Your task to perform on an android device: turn off location history Image 0: 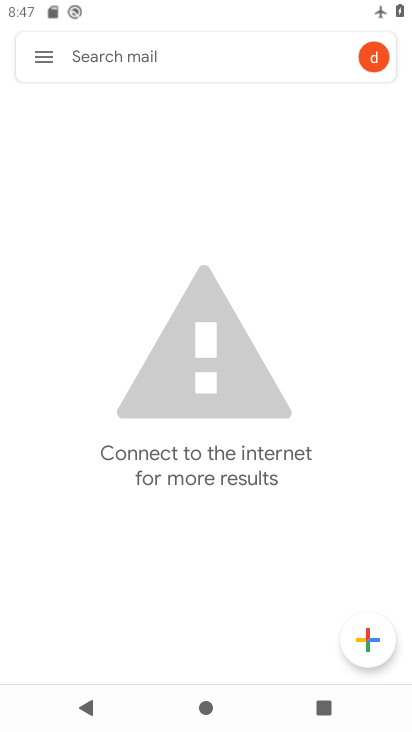
Step 0: press home button
Your task to perform on an android device: turn off location history Image 1: 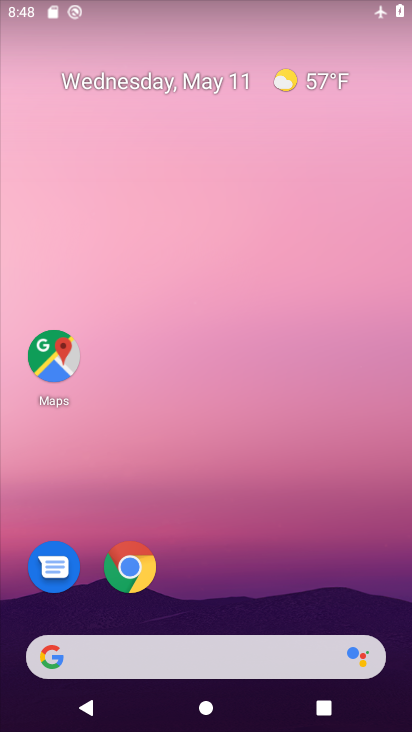
Step 1: drag from (255, 508) to (253, 82)
Your task to perform on an android device: turn off location history Image 2: 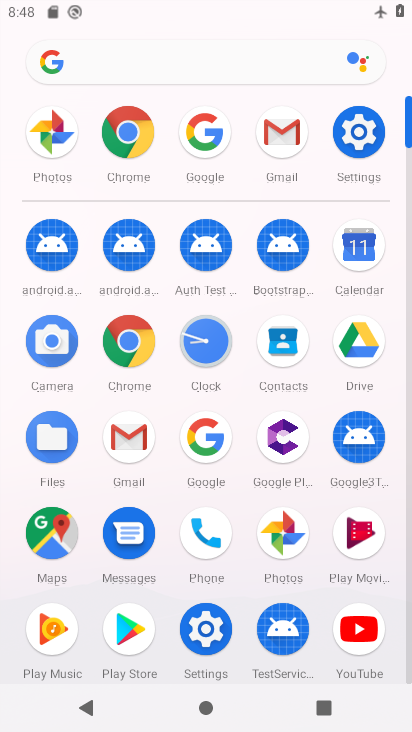
Step 2: click (367, 122)
Your task to perform on an android device: turn off location history Image 3: 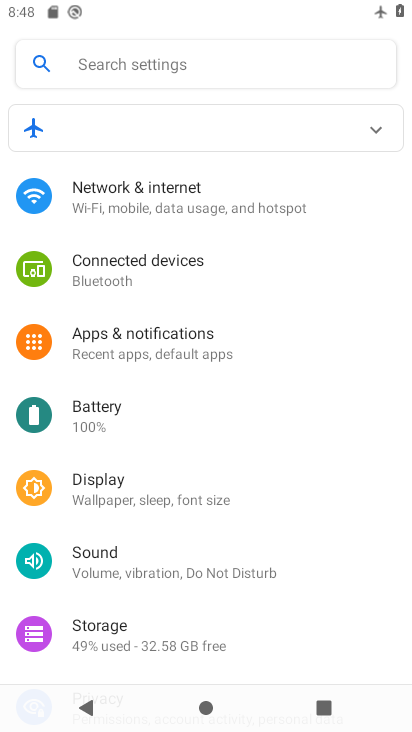
Step 3: drag from (183, 601) to (206, 267)
Your task to perform on an android device: turn off location history Image 4: 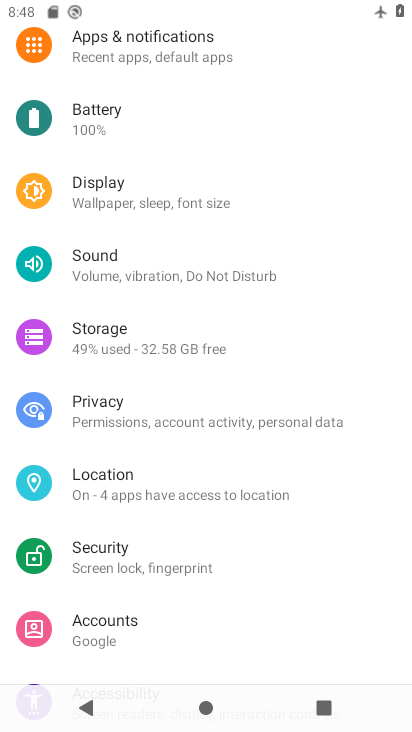
Step 4: click (160, 474)
Your task to perform on an android device: turn off location history Image 5: 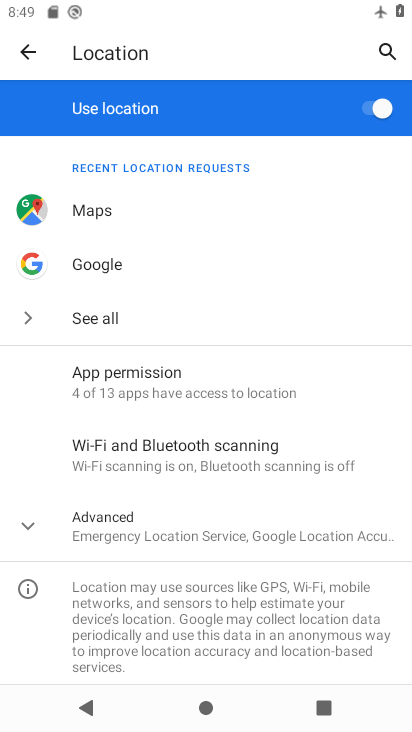
Step 5: drag from (262, 459) to (263, 337)
Your task to perform on an android device: turn off location history Image 6: 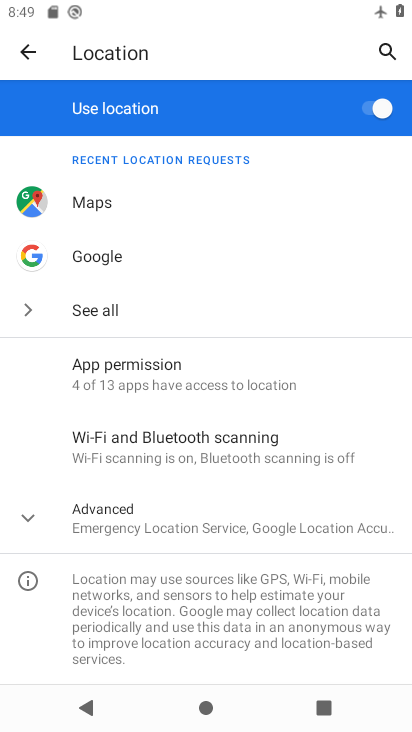
Step 6: click (220, 509)
Your task to perform on an android device: turn off location history Image 7: 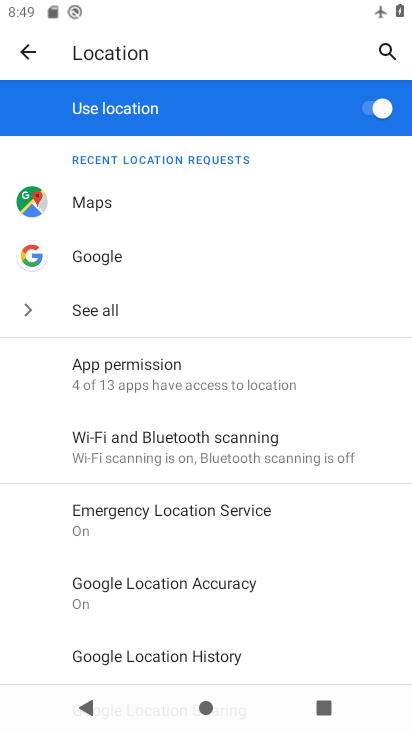
Step 7: click (228, 651)
Your task to perform on an android device: turn off location history Image 8: 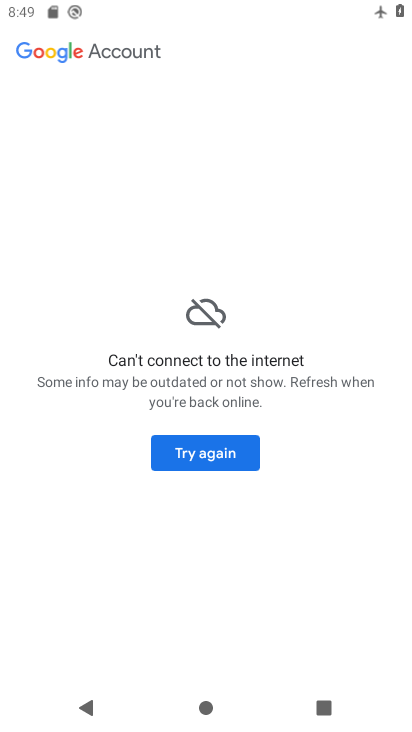
Step 8: task complete